Your task to perform on an android device: Check the weather Image 0: 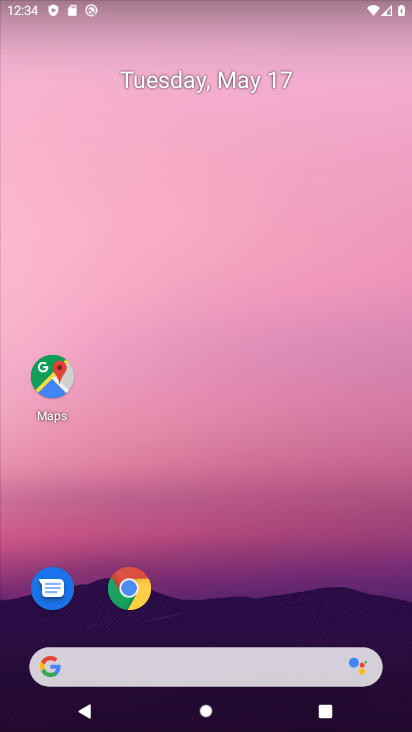
Step 0: drag from (42, 273) to (400, 257)
Your task to perform on an android device: Check the weather Image 1: 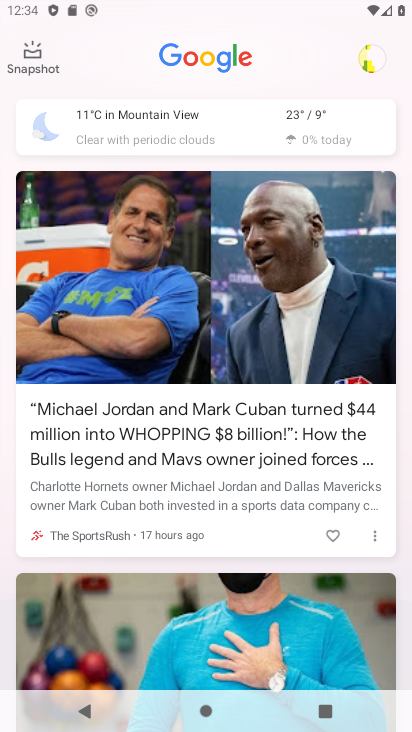
Step 1: click (290, 107)
Your task to perform on an android device: Check the weather Image 2: 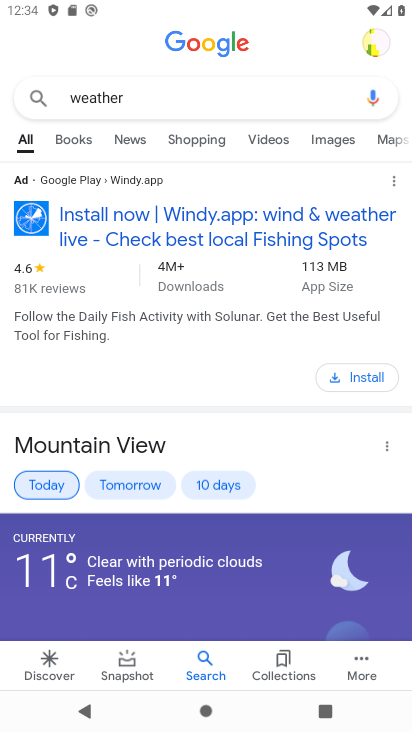
Step 2: task complete